Your task to perform on an android device: allow notifications from all sites in the chrome app Image 0: 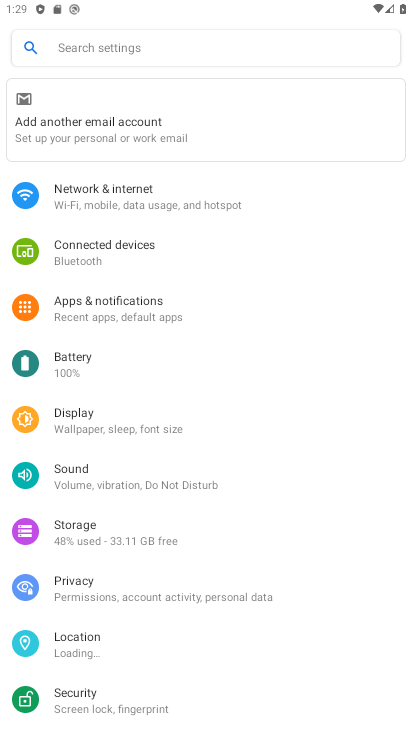
Step 0: press home button
Your task to perform on an android device: allow notifications from all sites in the chrome app Image 1: 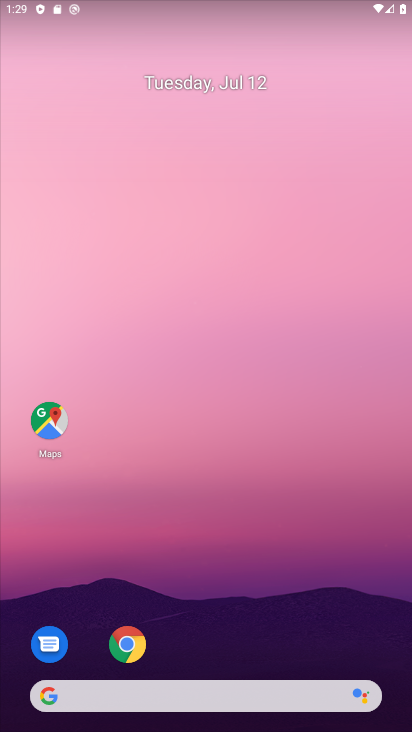
Step 1: drag from (182, 654) to (392, 13)
Your task to perform on an android device: allow notifications from all sites in the chrome app Image 2: 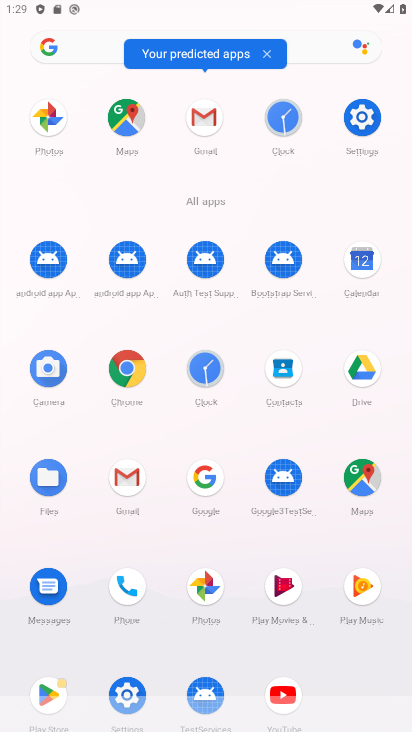
Step 2: click (126, 377)
Your task to perform on an android device: allow notifications from all sites in the chrome app Image 3: 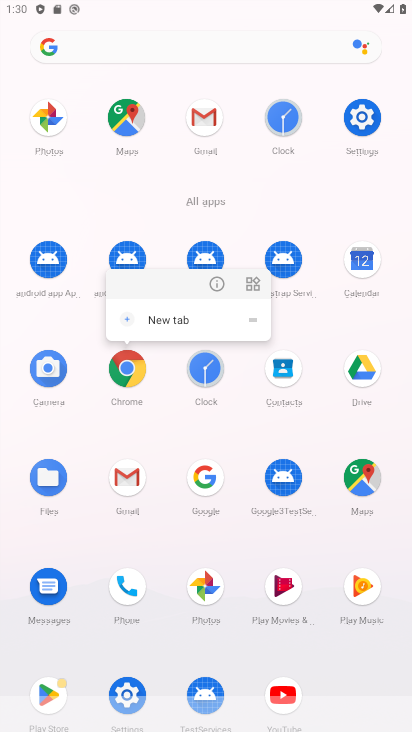
Step 3: click (121, 364)
Your task to perform on an android device: allow notifications from all sites in the chrome app Image 4: 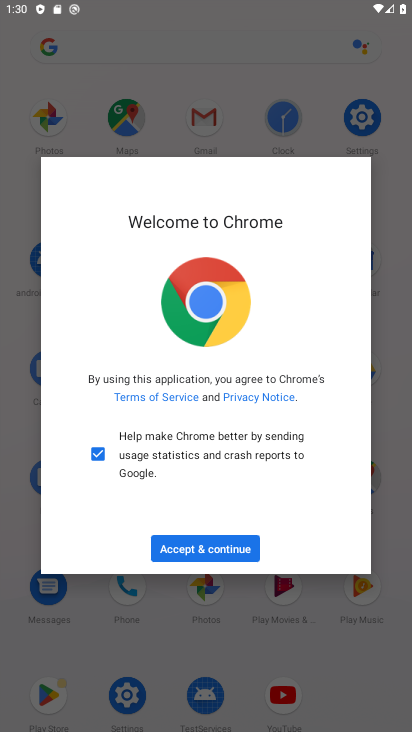
Step 4: click (206, 545)
Your task to perform on an android device: allow notifications from all sites in the chrome app Image 5: 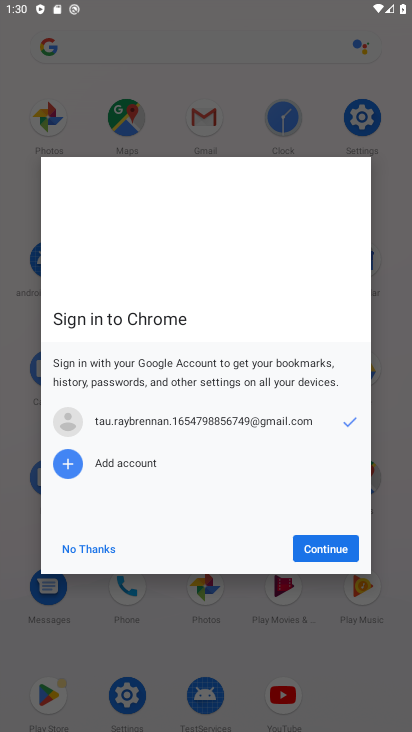
Step 5: click (336, 549)
Your task to perform on an android device: allow notifications from all sites in the chrome app Image 6: 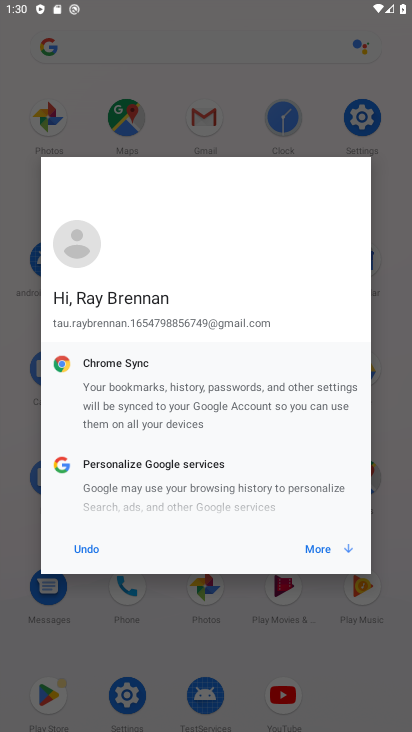
Step 6: click (327, 552)
Your task to perform on an android device: allow notifications from all sites in the chrome app Image 7: 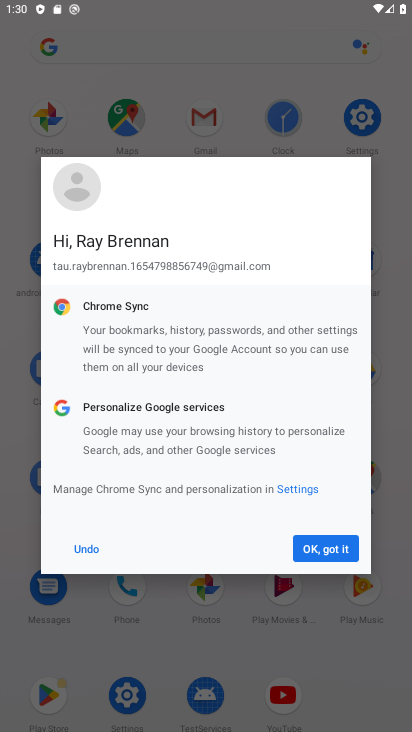
Step 7: click (327, 552)
Your task to perform on an android device: allow notifications from all sites in the chrome app Image 8: 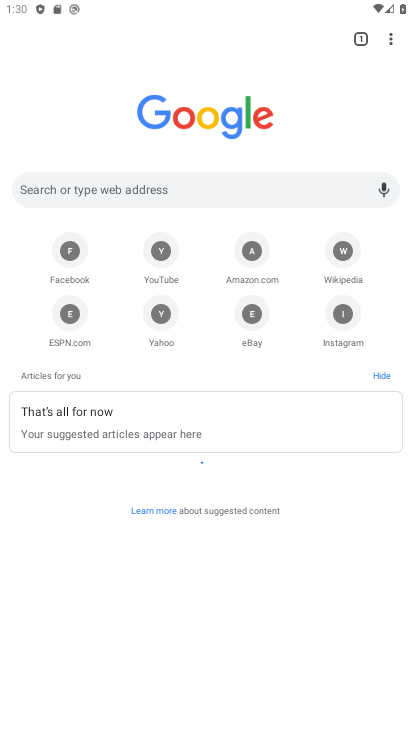
Step 8: drag from (391, 31) to (268, 325)
Your task to perform on an android device: allow notifications from all sites in the chrome app Image 9: 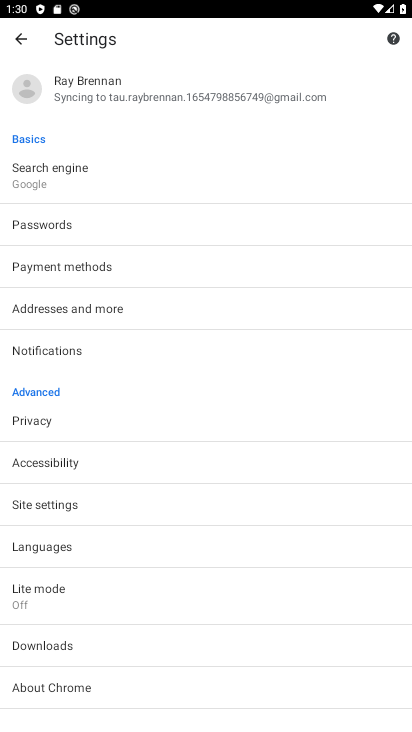
Step 9: click (104, 507)
Your task to perform on an android device: allow notifications from all sites in the chrome app Image 10: 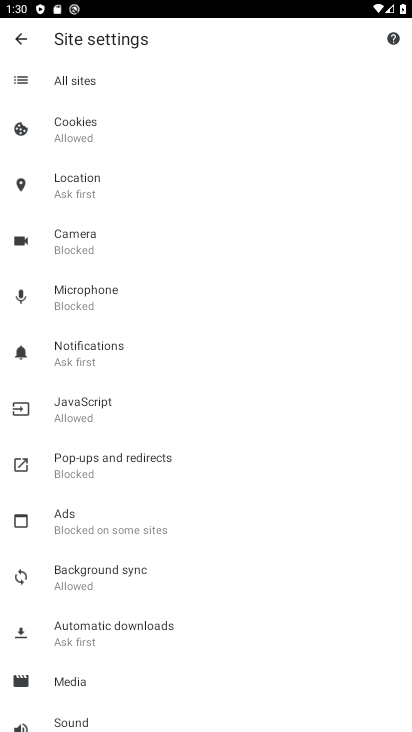
Step 10: click (121, 363)
Your task to perform on an android device: allow notifications from all sites in the chrome app Image 11: 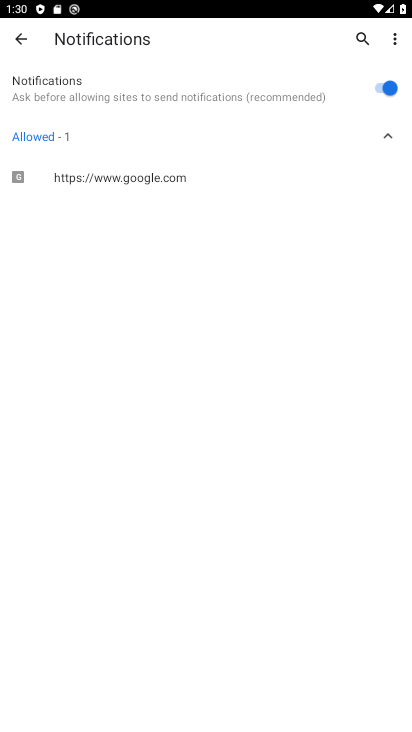
Step 11: click (224, 174)
Your task to perform on an android device: allow notifications from all sites in the chrome app Image 12: 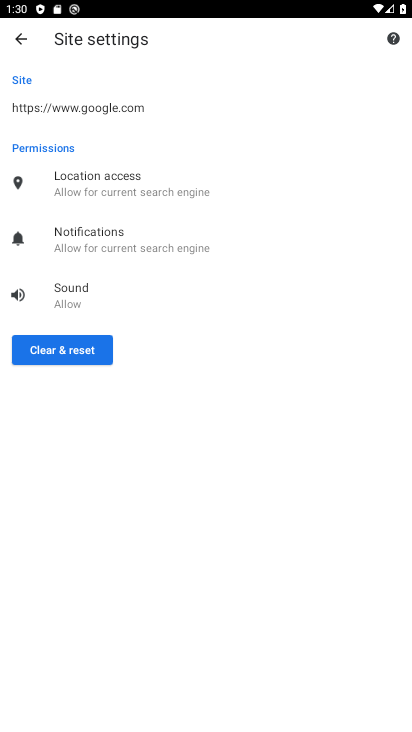
Step 12: task complete